Your task to perform on an android device: all mails in gmail Image 0: 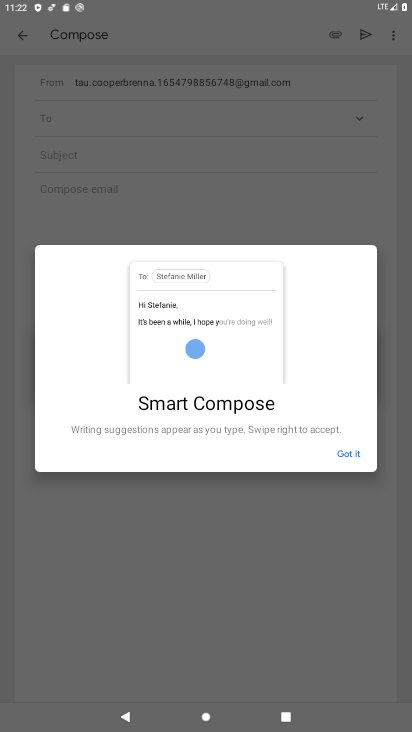
Step 0: press home button
Your task to perform on an android device: all mails in gmail Image 1: 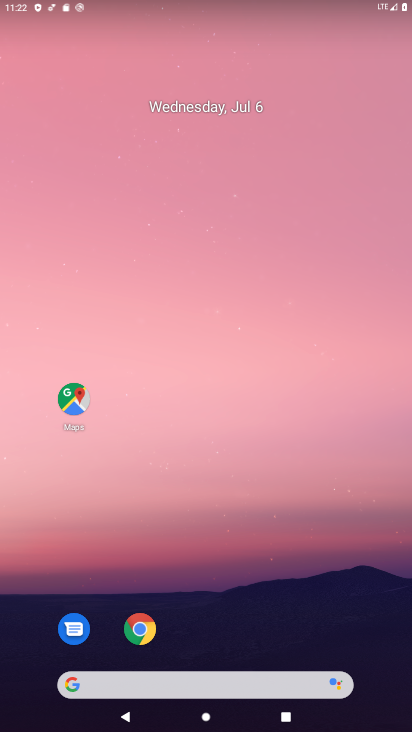
Step 1: drag from (209, 609) to (241, 235)
Your task to perform on an android device: all mails in gmail Image 2: 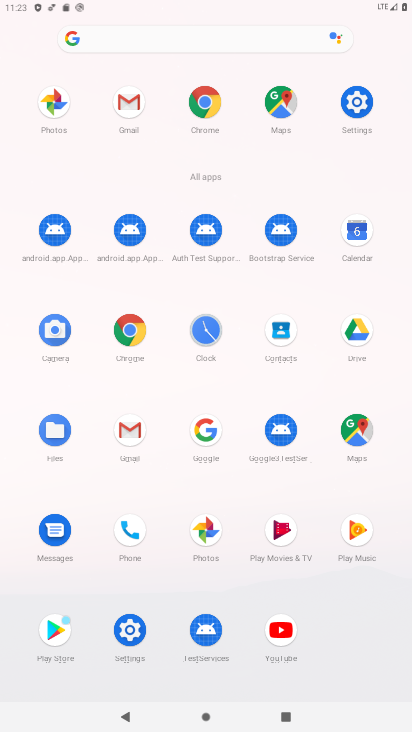
Step 2: click (127, 97)
Your task to perform on an android device: all mails in gmail Image 3: 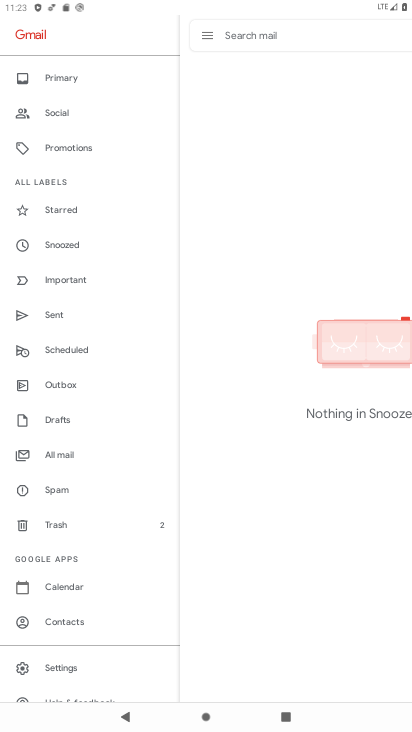
Step 3: click (83, 449)
Your task to perform on an android device: all mails in gmail Image 4: 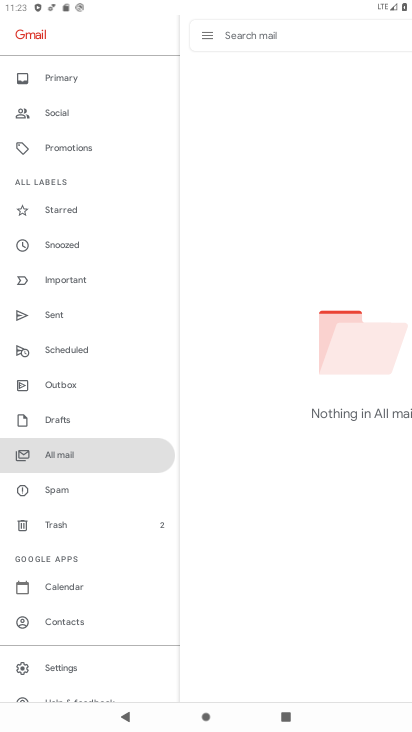
Step 4: task complete